Your task to perform on an android device: change the upload size in google photos Image 0: 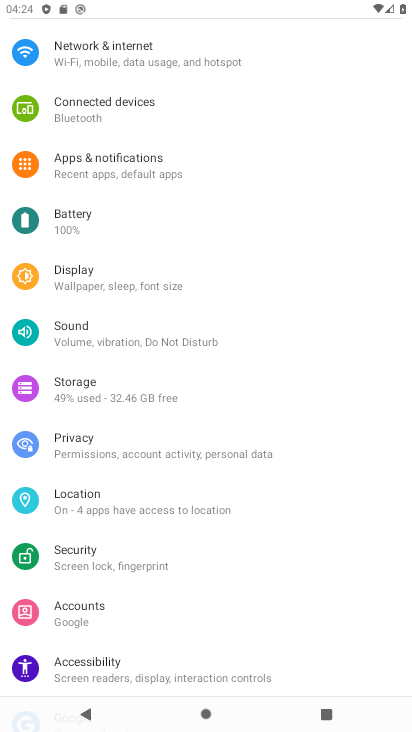
Step 0: press back button
Your task to perform on an android device: change the upload size in google photos Image 1: 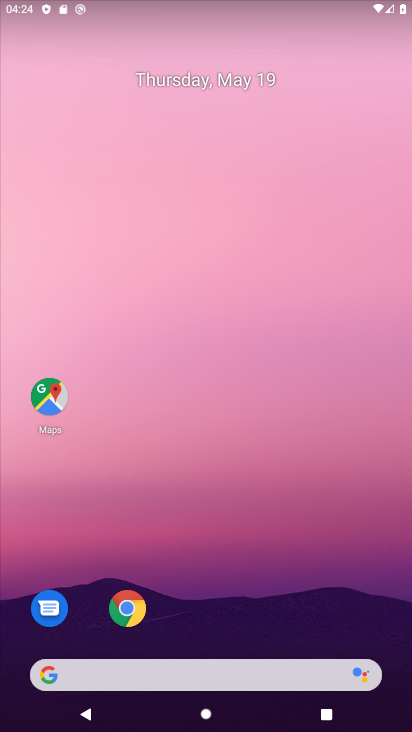
Step 1: drag from (246, 600) to (179, 280)
Your task to perform on an android device: change the upload size in google photos Image 2: 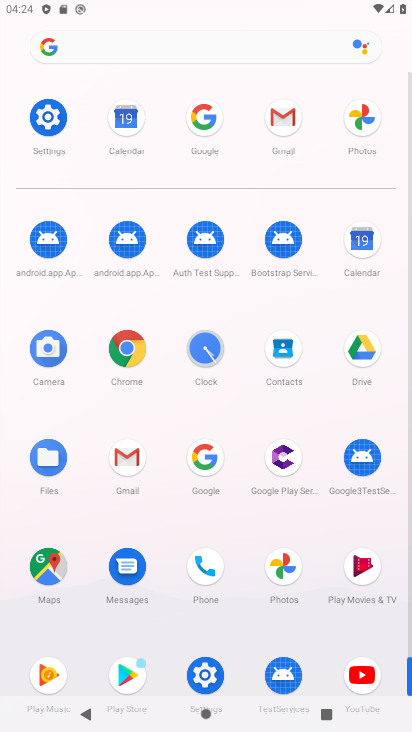
Step 2: click (359, 115)
Your task to perform on an android device: change the upload size in google photos Image 3: 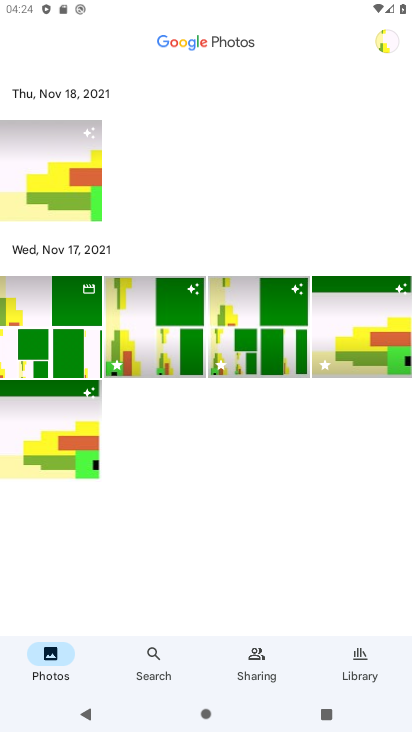
Step 3: click (386, 37)
Your task to perform on an android device: change the upload size in google photos Image 4: 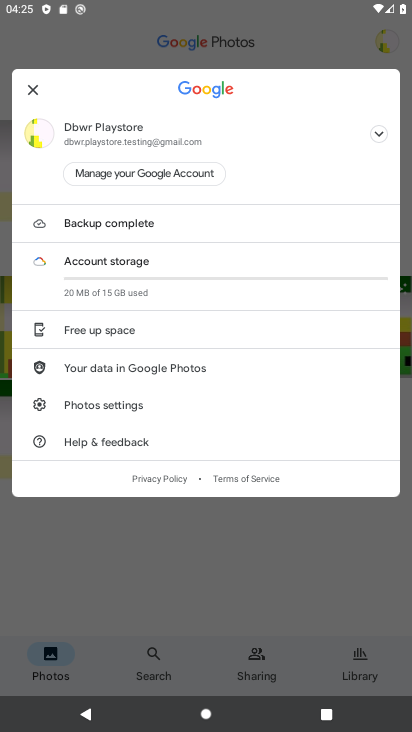
Step 4: click (113, 404)
Your task to perform on an android device: change the upload size in google photos Image 5: 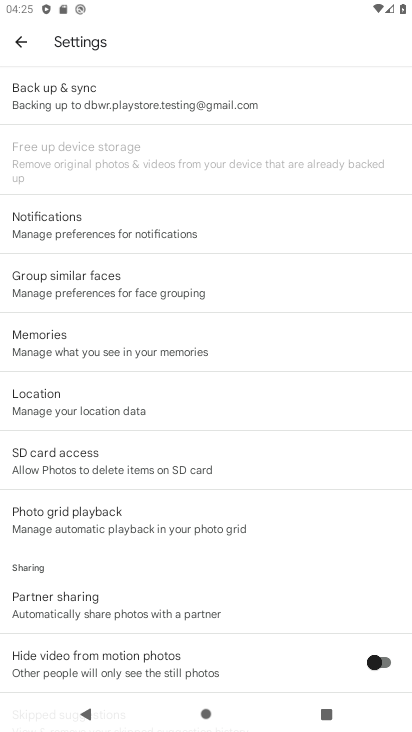
Step 5: click (67, 104)
Your task to perform on an android device: change the upload size in google photos Image 6: 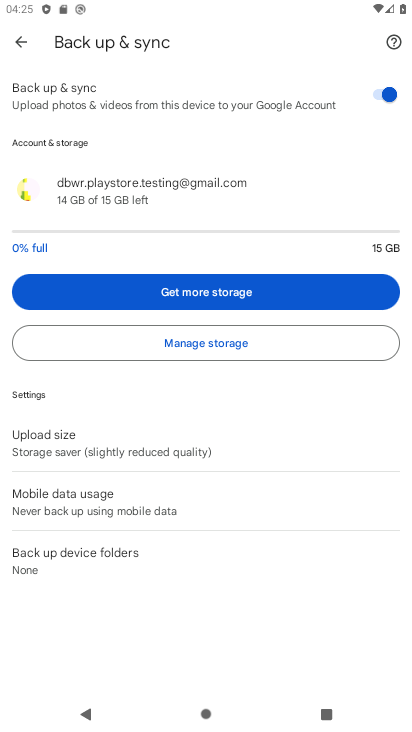
Step 6: click (73, 446)
Your task to perform on an android device: change the upload size in google photos Image 7: 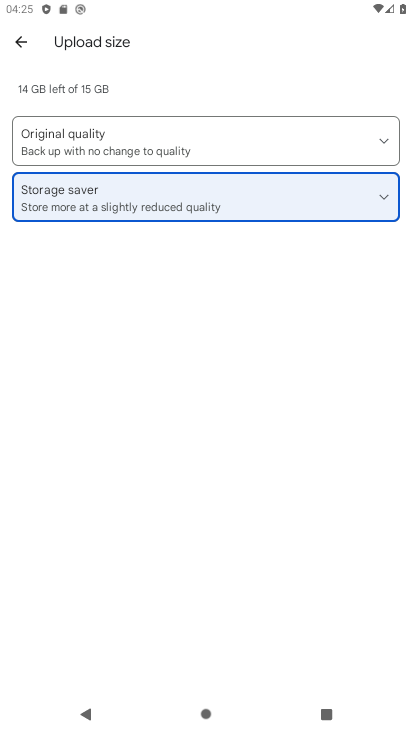
Step 7: click (379, 137)
Your task to perform on an android device: change the upload size in google photos Image 8: 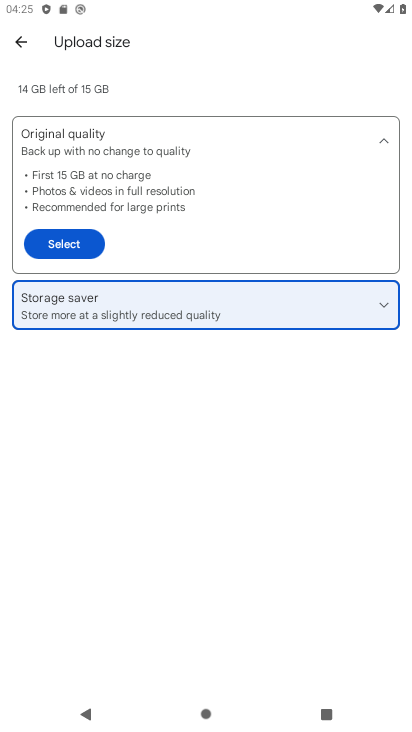
Step 8: click (61, 247)
Your task to perform on an android device: change the upload size in google photos Image 9: 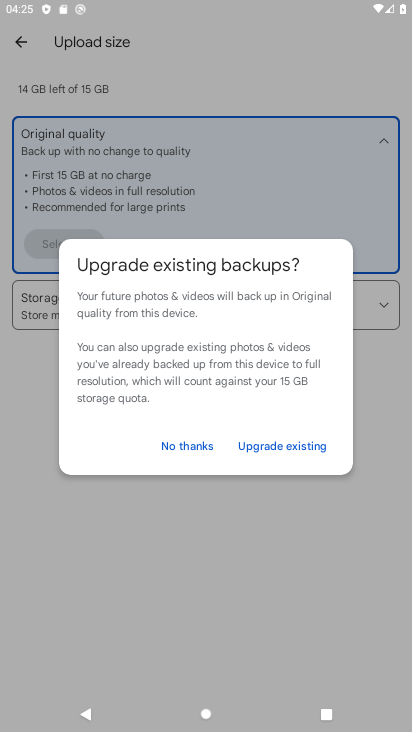
Step 9: click (262, 444)
Your task to perform on an android device: change the upload size in google photos Image 10: 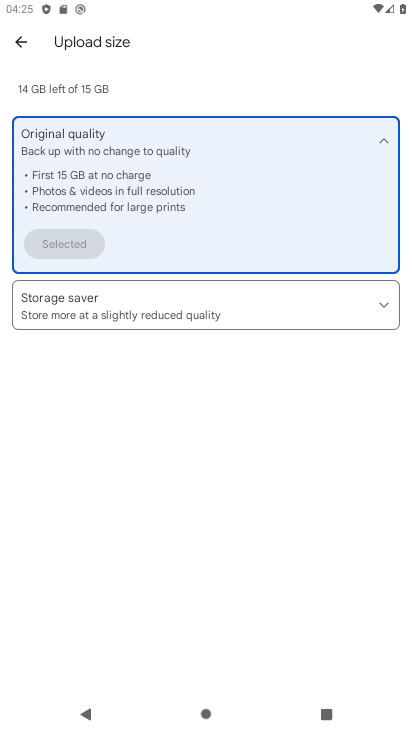
Step 10: click (380, 139)
Your task to perform on an android device: change the upload size in google photos Image 11: 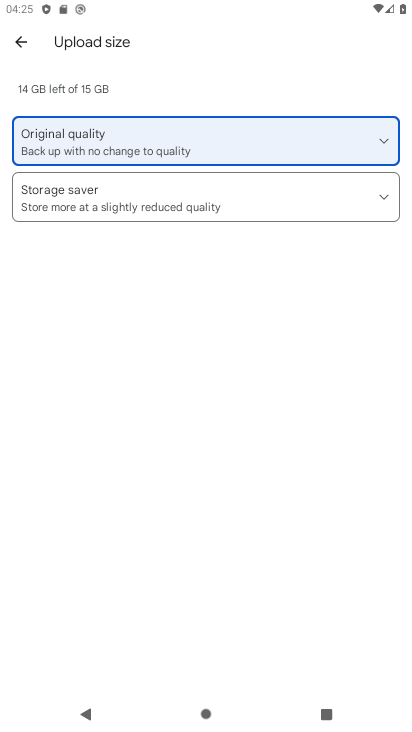
Step 11: task complete